Your task to perform on an android device: Go to ESPN.com Image 0: 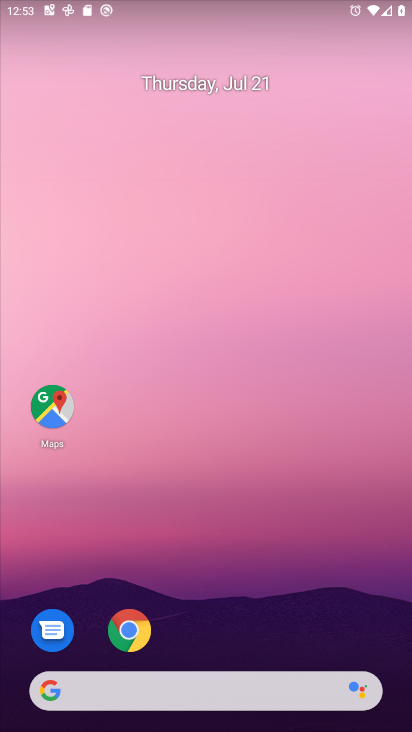
Step 0: drag from (193, 643) to (228, 241)
Your task to perform on an android device: Go to ESPN.com Image 1: 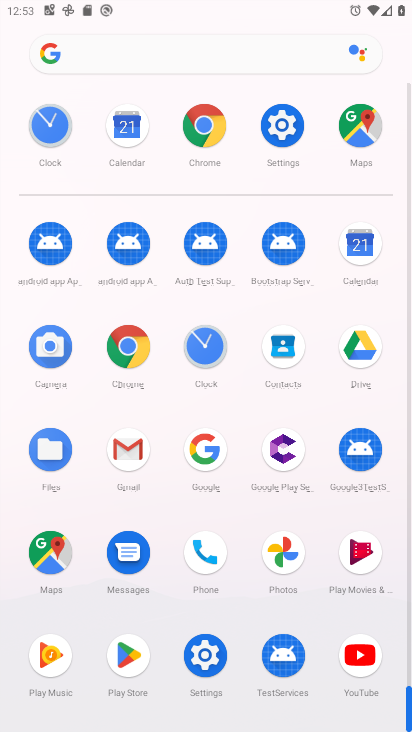
Step 1: click (207, 116)
Your task to perform on an android device: Go to ESPN.com Image 2: 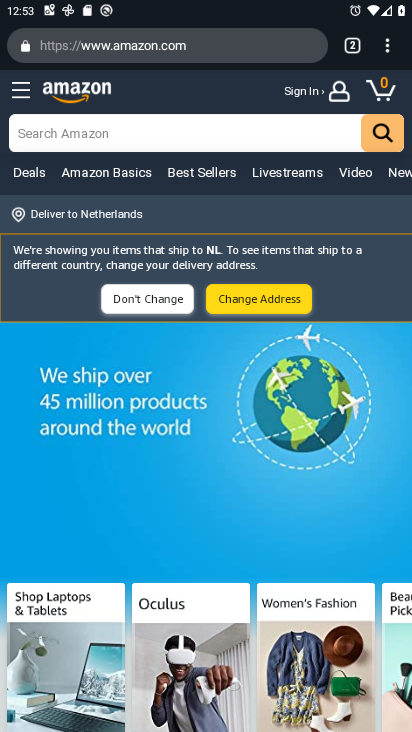
Step 2: drag from (225, 551) to (309, 282)
Your task to perform on an android device: Go to ESPN.com Image 3: 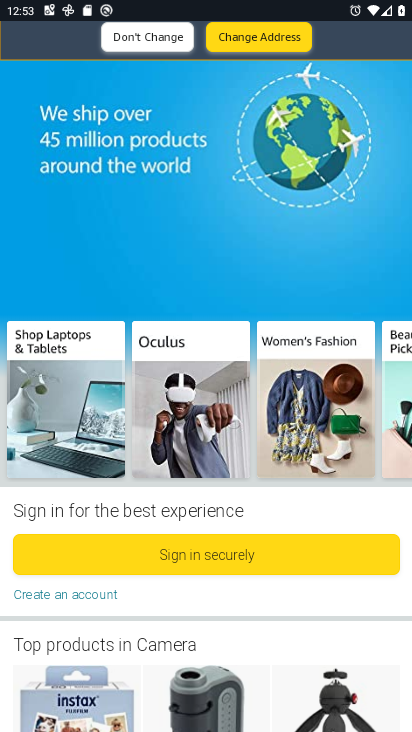
Step 3: drag from (257, 217) to (280, 472)
Your task to perform on an android device: Go to ESPN.com Image 4: 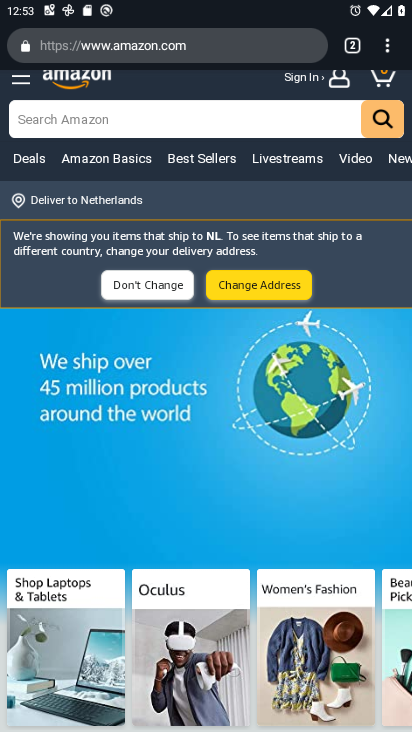
Step 4: click (132, 50)
Your task to perform on an android device: Go to ESPN.com Image 5: 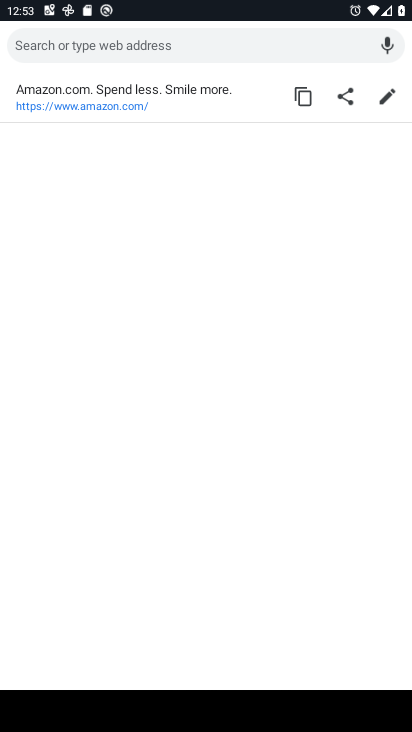
Step 5: type ""
Your task to perform on an android device: Go to ESPN.com Image 6: 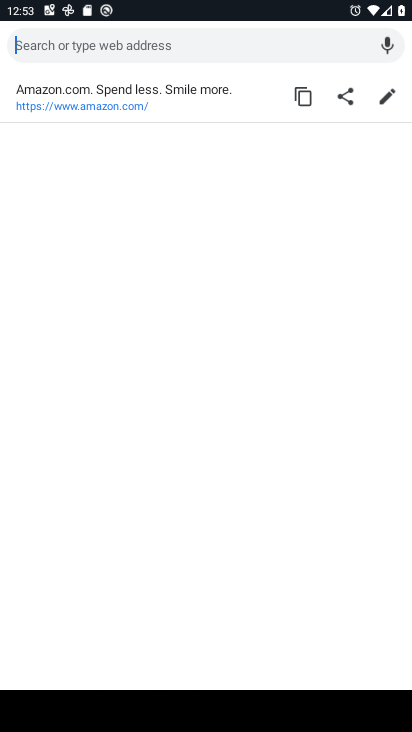
Step 6: type "espn.com"
Your task to perform on an android device: Go to ESPN.com Image 7: 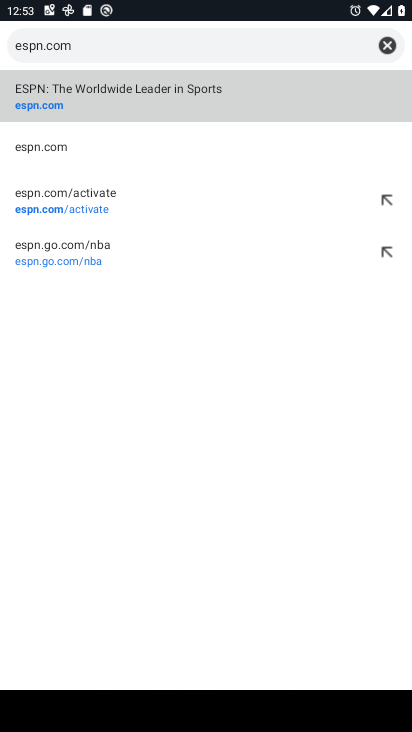
Step 7: click (15, 100)
Your task to perform on an android device: Go to ESPN.com Image 8: 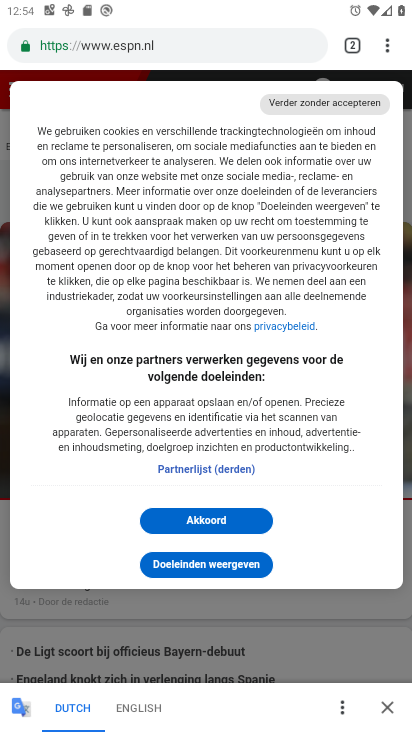
Step 8: task complete